Your task to perform on an android device: Open calendar and show me the first week of next month Image 0: 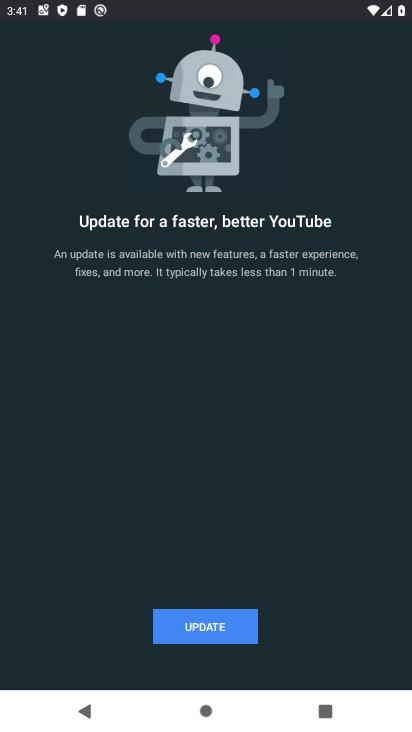
Step 0: press home button
Your task to perform on an android device: Open calendar and show me the first week of next month Image 1: 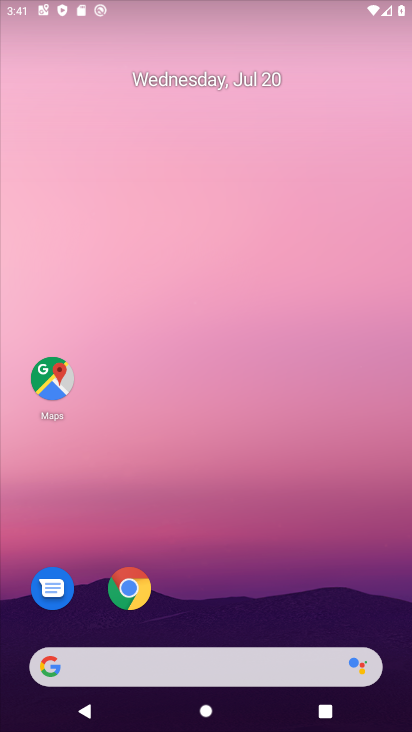
Step 1: drag from (304, 515) to (217, 38)
Your task to perform on an android device: Open calendar and show me the first week of next month Image 2: 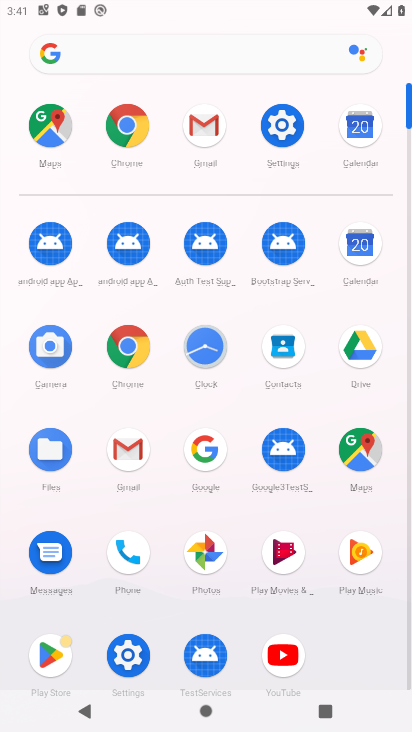
Step 2: click (373, 244)
Your task to perform on an android device: Open calendar and show me the first week of next month Image 3: 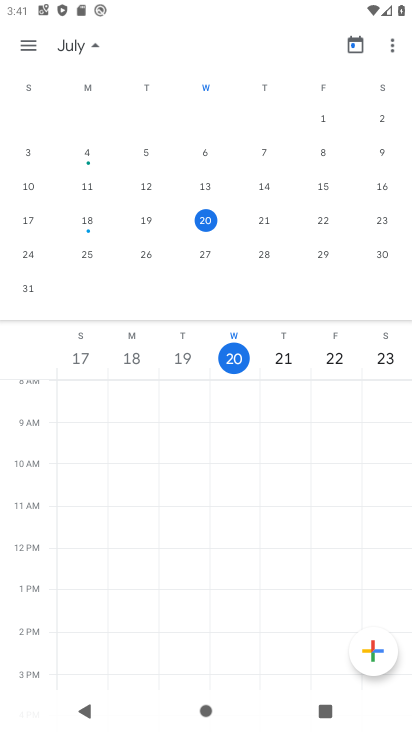
Step 3: drag from (392, 184) to (33, 159)
Your task to perform on an android device: Open calendar and show me the first week of next month Image 4: 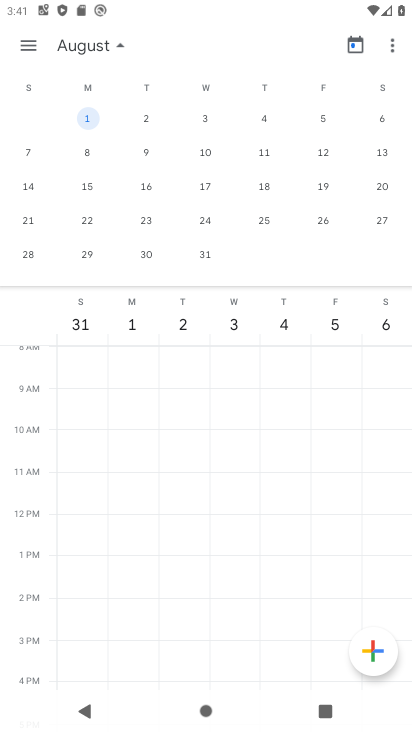
Step 4: click (204, 110)
Your task to perform on an android device: Open calendar and show me the first week of next month Image 5: 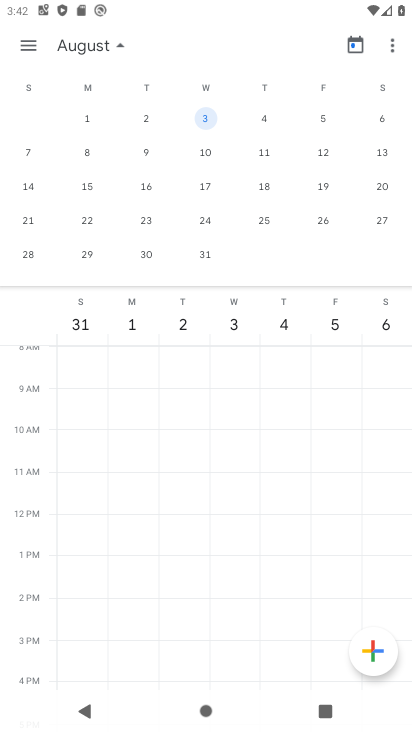
Step 5: task complete